Your task to perform on an android device: Show me popular games on the Play Store Image 0: 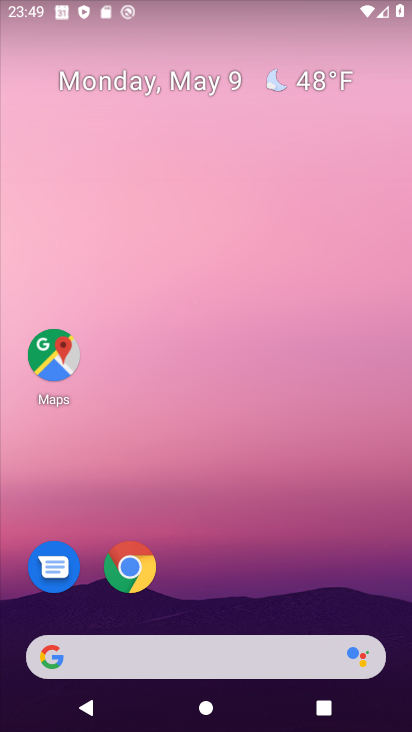
Step 0: drag from (225, 583) to (160, 71)
Your task to perform on an android device: Show me popular games on the Play Store Image 1: 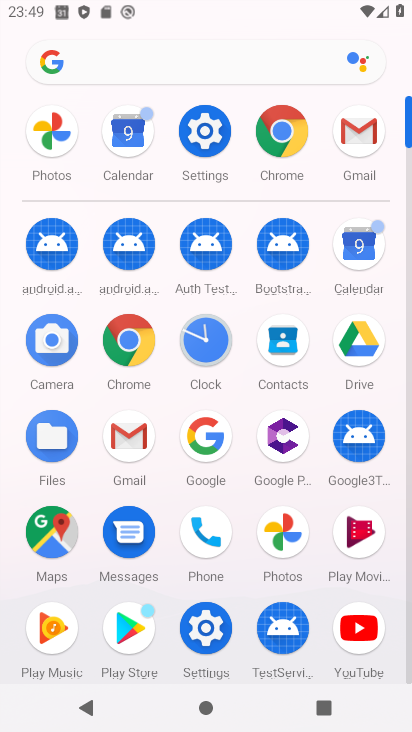
Step 1: click (130, 626)
Your task to perform on an android device: Show me popular games on the Play Store Image 2: 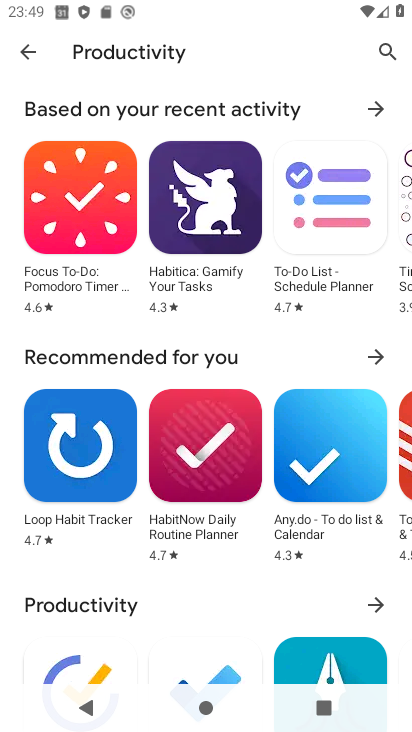
Step 2: press back button
Your task to perform on an android device: Show me popular games on the Play Store Image 3: 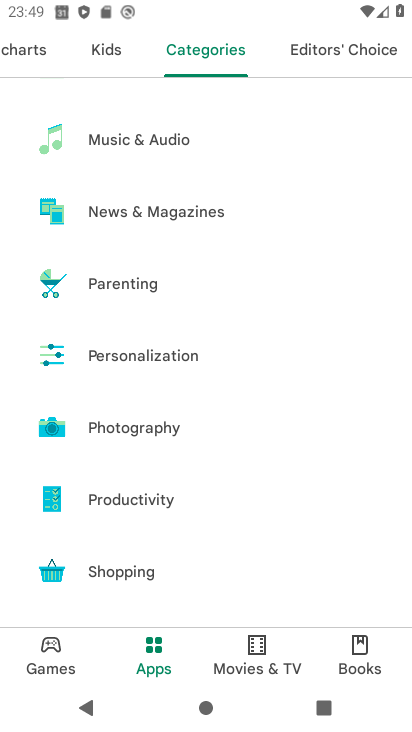
Step 3: click (51, 659)
Your task to perform on an android device: Show me popular games on the Play Store Image 4: 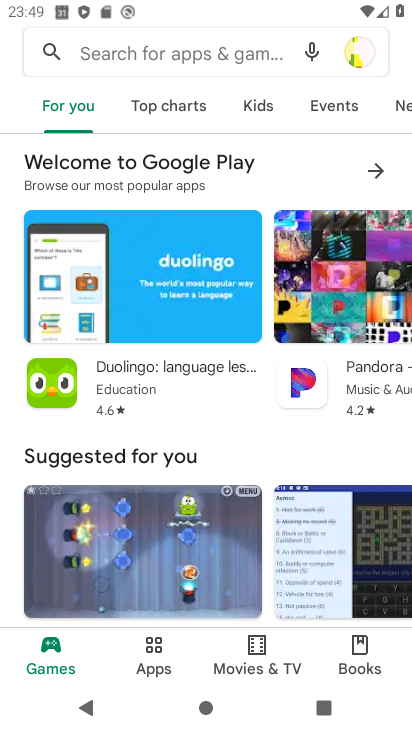
Step 4: click (206, 38)
Your task to perform on an android device: Show me popular games on the Play Store Image 5: 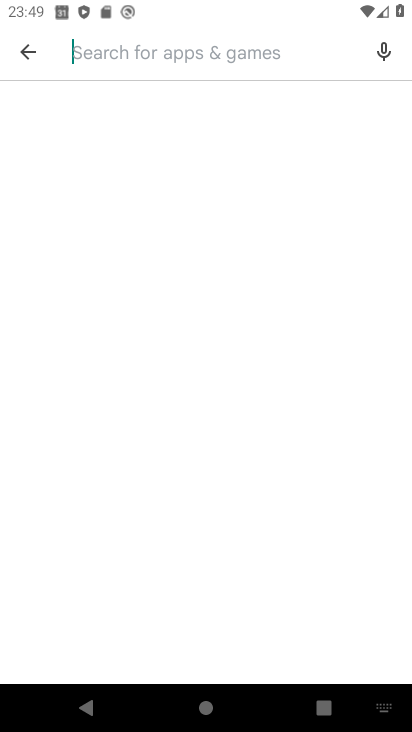
Step 5: type "popular games"
Your task to perform on an android device: Show me popular games on the Play Store Image 6: 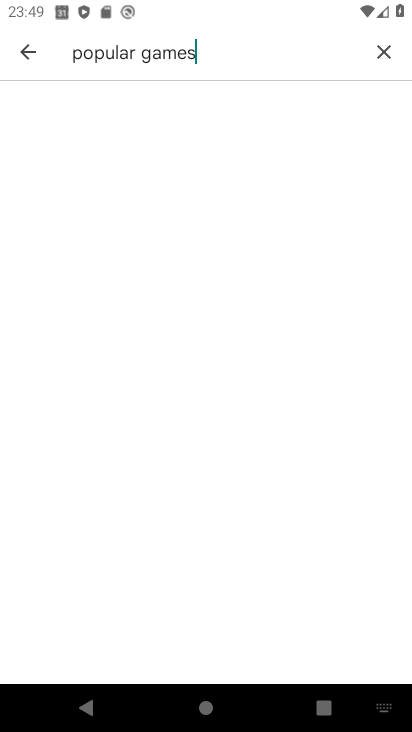
Step 6: type ""
Your task to perform on an android device: Show me popular games on the Play Store Image 7: 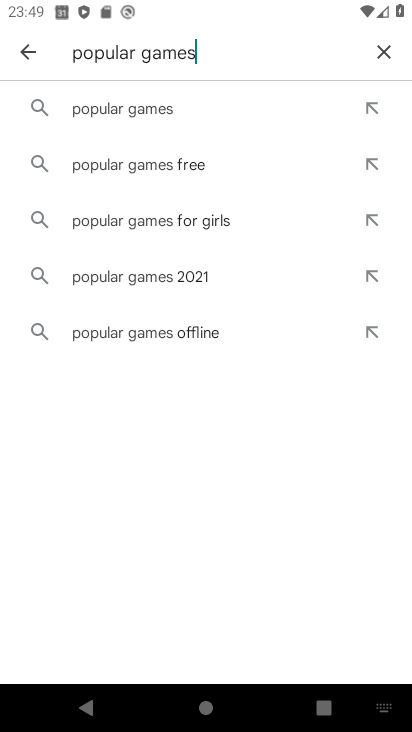
Step 7: click (142, 107)
Your task to perform on an android device: Show me popular games on the Play Store Image 8: 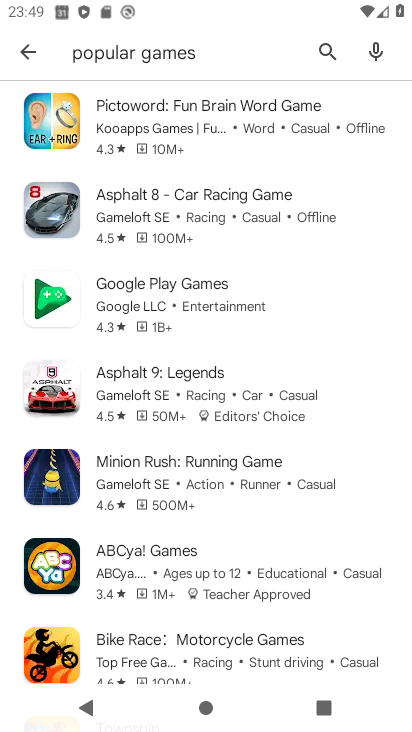
Step 8: task complete